Your task to perform on an android device: manage bookmarks in the chrome app Image 0: 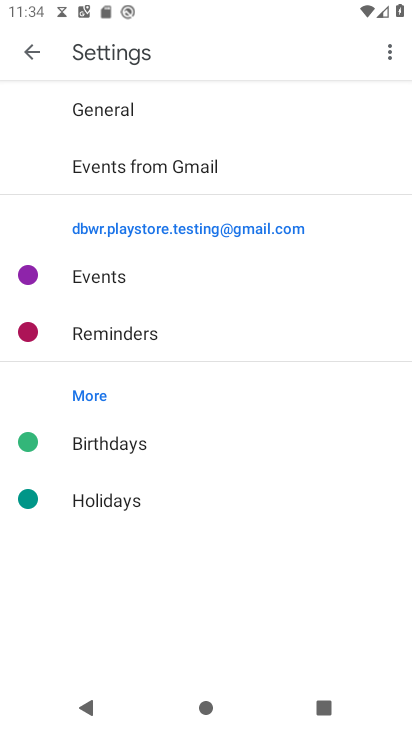
Step 0: press home button
Your task to perform on an android device: manage bookmarks in the chrome app Image 1: 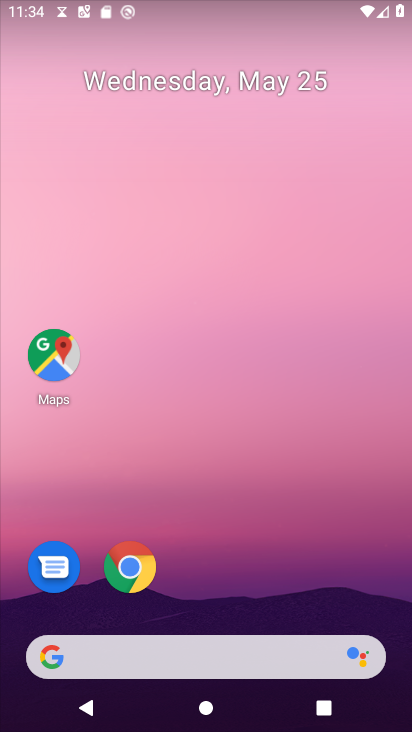
Step 1: click (139, 580)
Your task to perform on an android device: manage bookmarks in the chrome app Image 2: 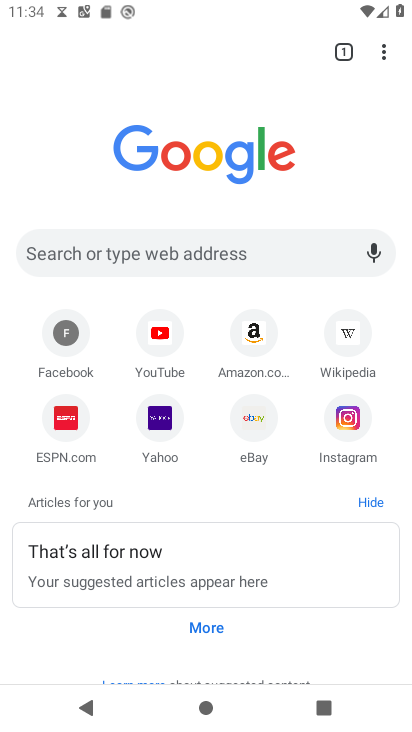
Step 2: click (387, 53)
Your task to perform on an android device: manage bookmarks in the chrome app Image 3: 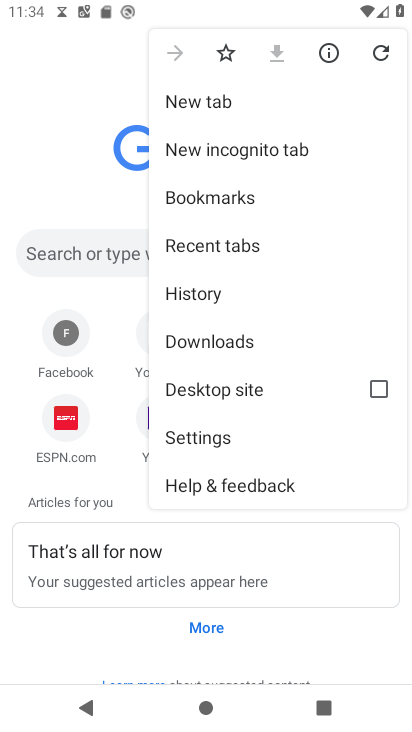
Step 3: click (232, 193)
Your task to perform on an android device: manage bookmarks in the chrome app Image 4: 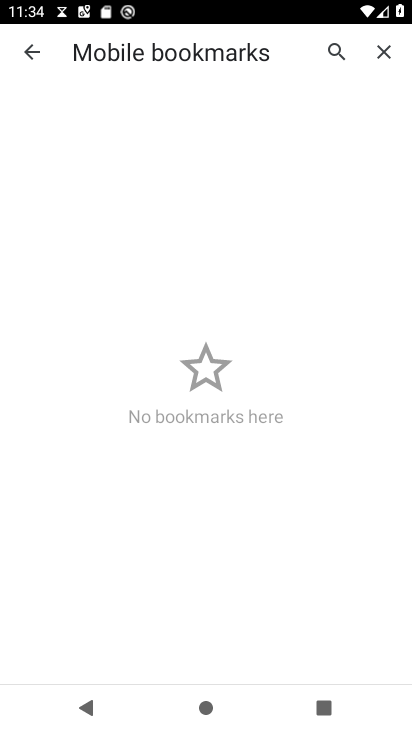
Step 4: task complete